Your task to perform on an android device: turn on the 24-hour format for clock Image 0: 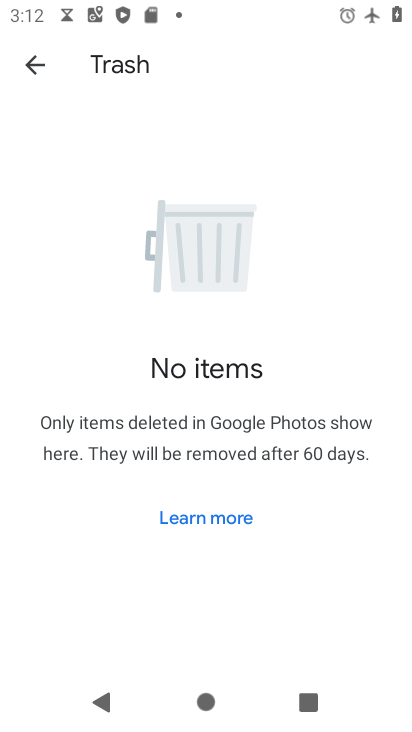
Step 0: press home button
Your task to perform on an android device: turn on the 24-hour format for clock Image 1: 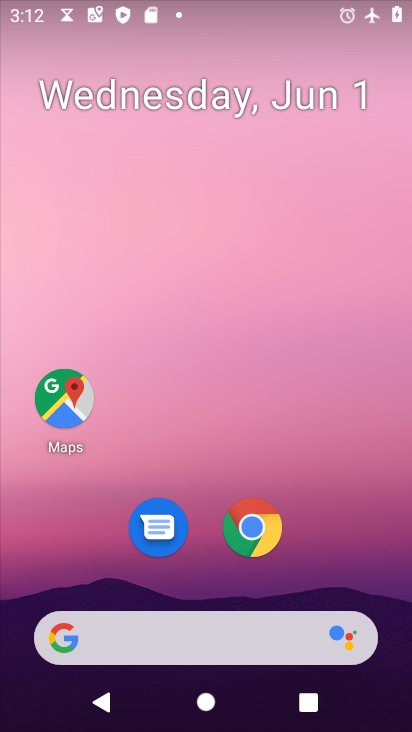
Step 1: drag from (335, 586) to (256, 148)
Your task to perform on an android device: turn on the 24-hour format for clock Image 2: 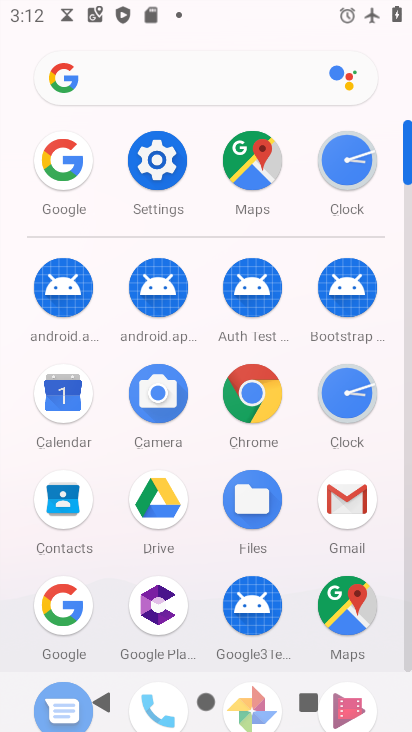
Step 2: click (346, 159)
Your task to perform on an android device: turn on the 24-hour format for clock Image 3: 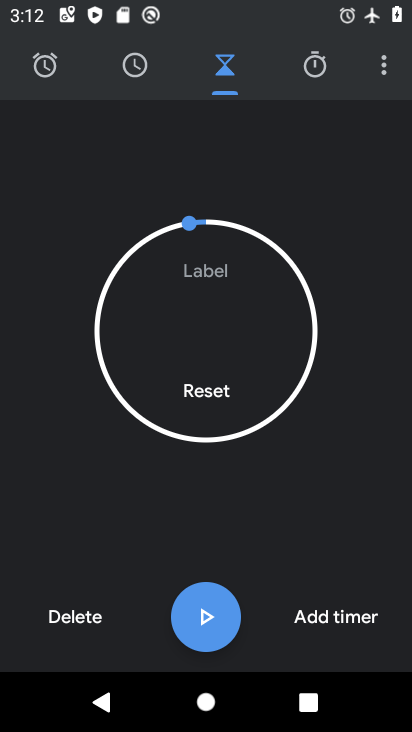
Step 3: click (382, 69)
Your task to perform on an android device: turn on the 24-hour format for clock Image 4: 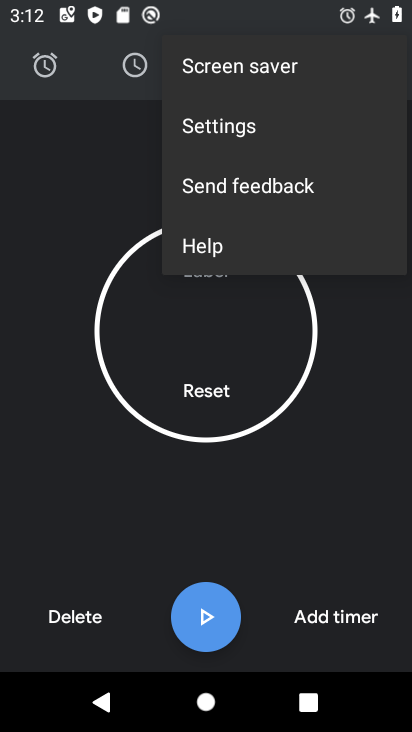
Step 4: click (248, 132)
Your task to perform on an android device: turn on the 24-hour format for clock Image 5: 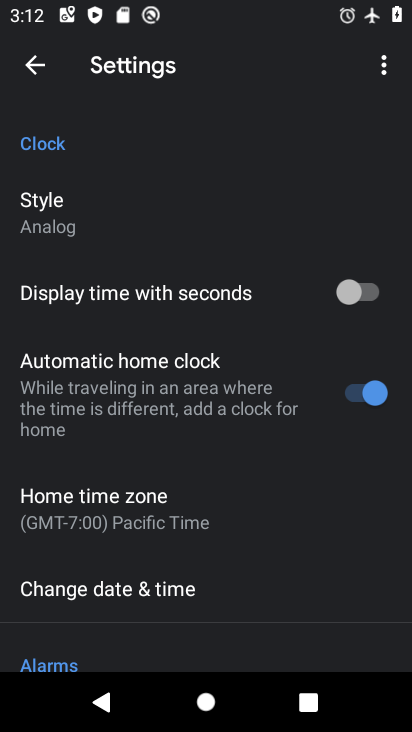
Step 5: drag from (214, 487) to (226, 372)
Your task to perform on an android device: turn on the 24-hour format for clock Image 6: 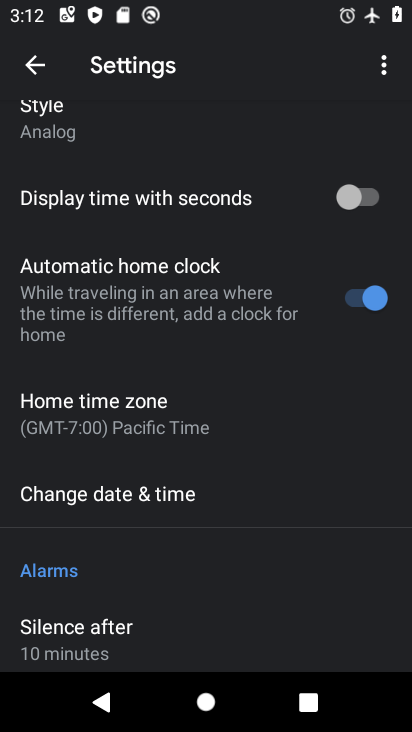
Step 6: click (127, 488)
Your task to perform on an android device: turn on the 24-hour format for clock Image 7: 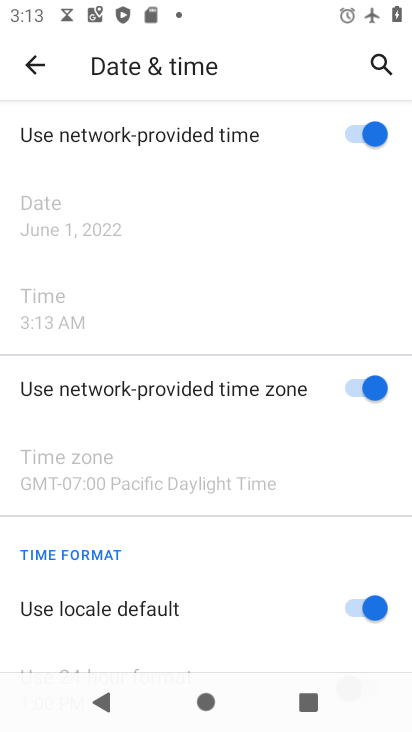
Step 7: drag from (189, 557) to (222, 294)
Your task to perform on an android device: turn on the 24-hour format for clock Image 8: 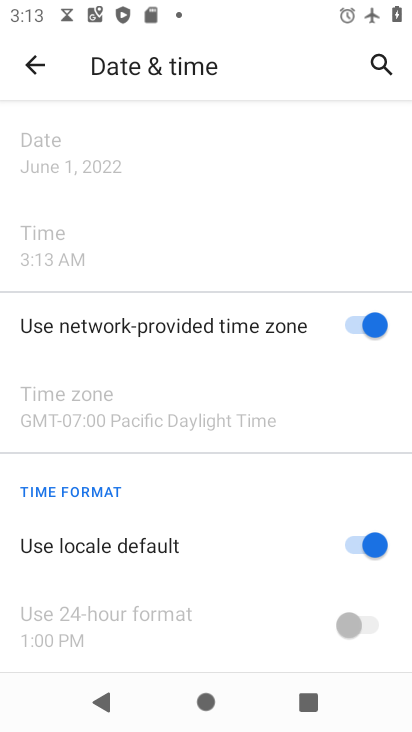
Step 8: click (358, 553)
Your task to perform on an android device: turn on the 24-hour format for clock Image 9: 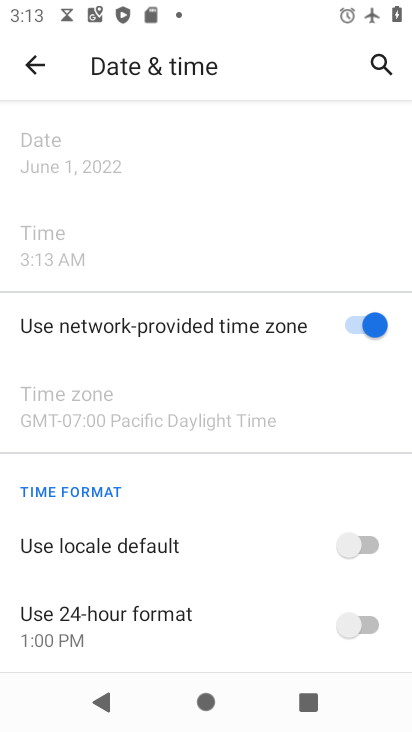
Step 9: click (362, 624)
Your task to perform on an android device: turn on the 24-hour format for clock Image 10: 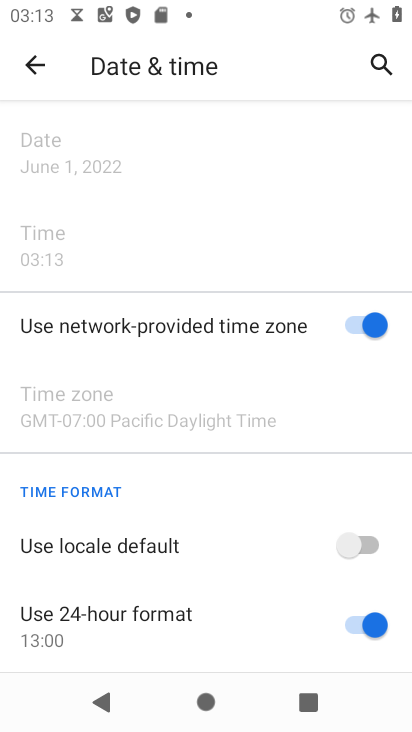
Step 10: task complete